Your task to perform on an android device: turn pop-ups on in chrome Image 0: 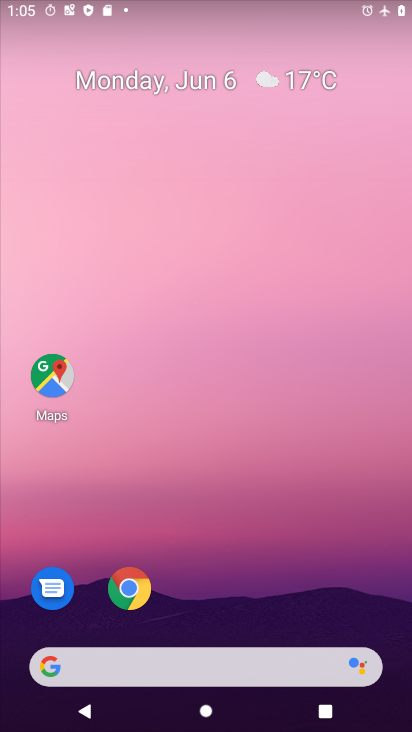
Step 0: drag from (262, 463) to (313, 79)
Your task to perform on an android device: turn pop-ups on in chrome Image 1: 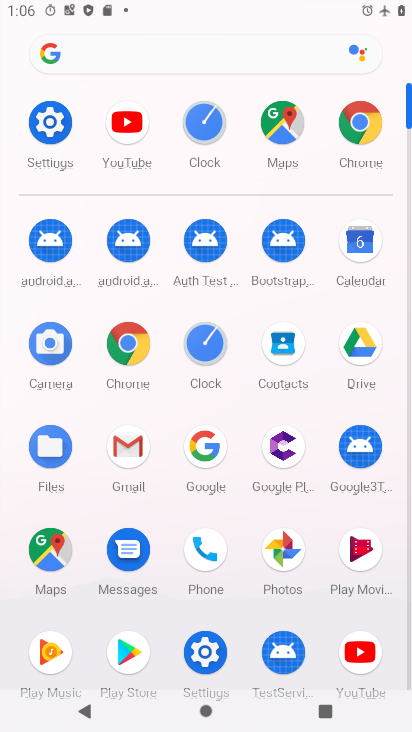
Step 1: click (124, 343)
Your task to perform on an android device: turn pop-ups on in chrome Image 2: 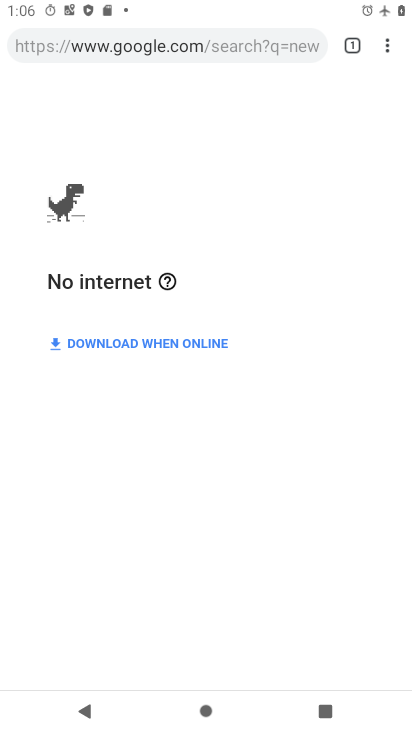
Step 2: drag from (390, 35) to (267, 517)
Your task to perform on an android device: turn pop-ups on in chrome Image 3: 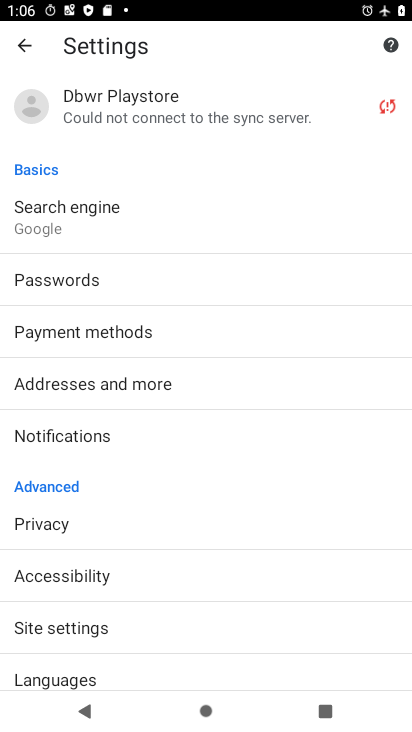
Step 3: click (119, 614)
Your task to perform on an android device: turn pop-ups on in chrome Image 4: 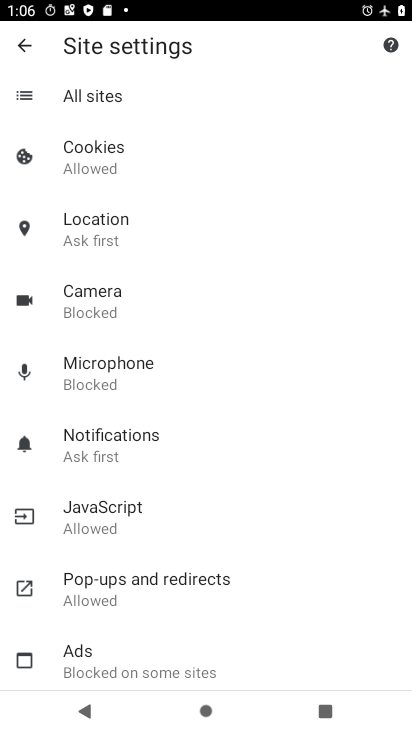
Step 4: click (225, 596)
Your task to perform on an android device: turn pop-ups on in chrome Image 5: 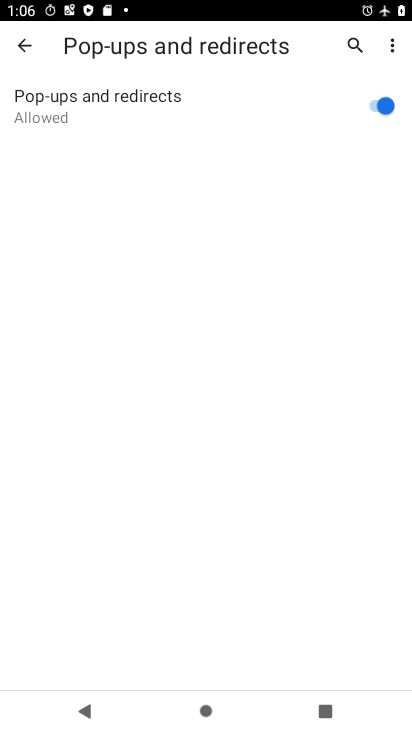
Step 5: task complete